Your task to perform on an android device: Go to settings Image 0: 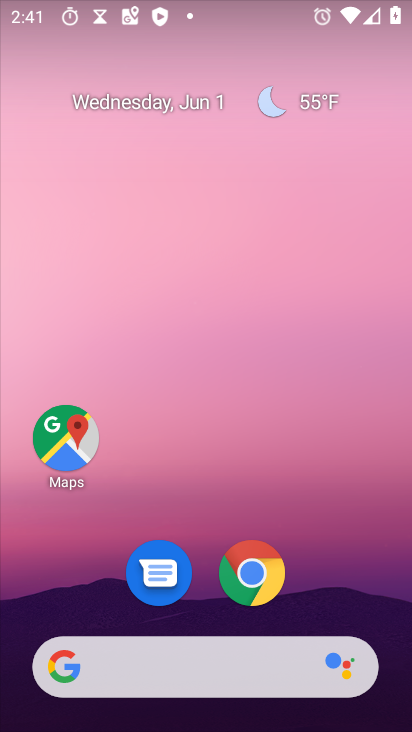
Step 0: drag from (315, 502) to (297, 0)
Your task to perform on an android device: Go to settings Image 1: 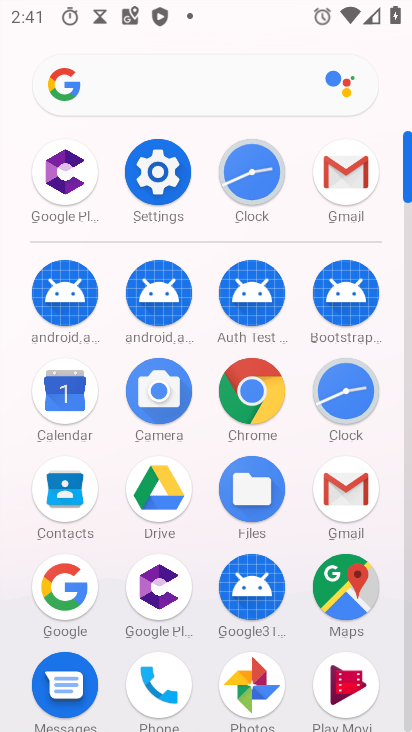
Step 1: click (150, 152)
Your task to perform on an android device: Go to settings Image 2: 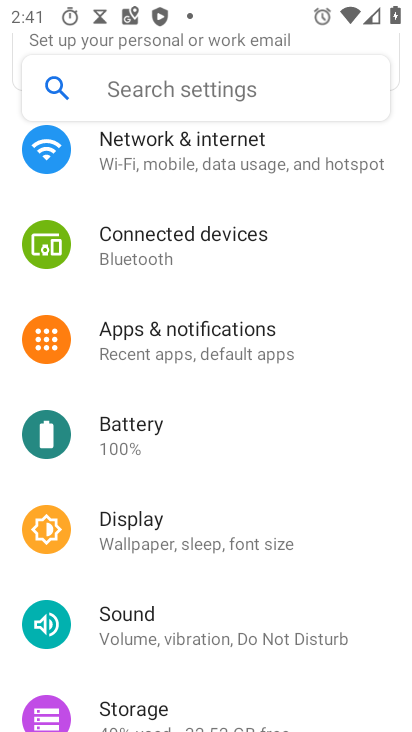
Step 2: task complete